Your task to perform on an android device: Open Wikipedia Image 0: 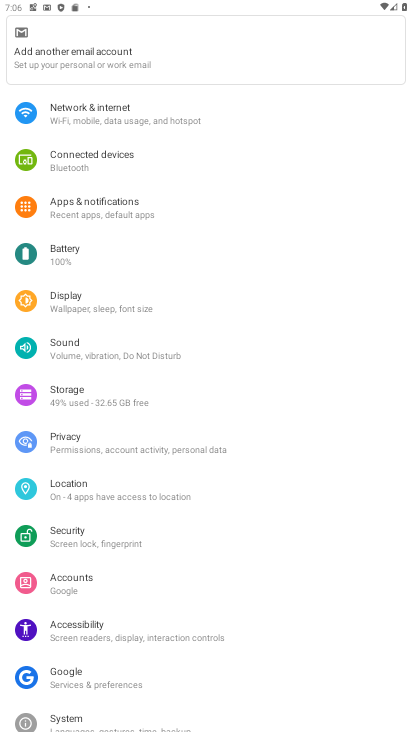
Step 0: press home button
Your task to perform on an android device: Open Wikipedia Image 1: 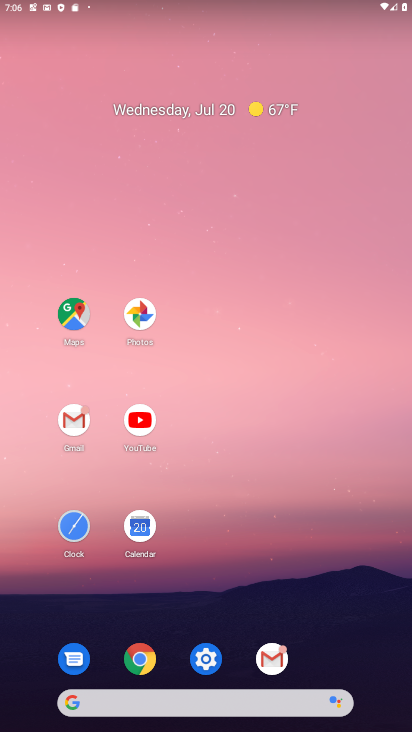
Step 1: click (143, 660)
Your task to perform on an android device: Open Wikipedia Image 2: 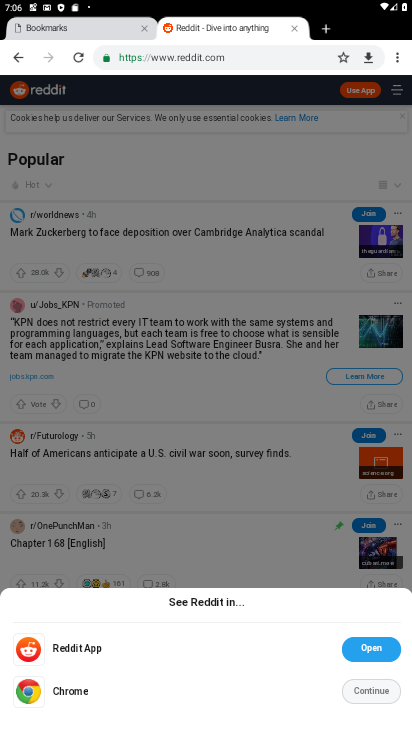
Step 2: click (396, 52)
Your task to perform on an android device: Open Wikipedia Image 3: 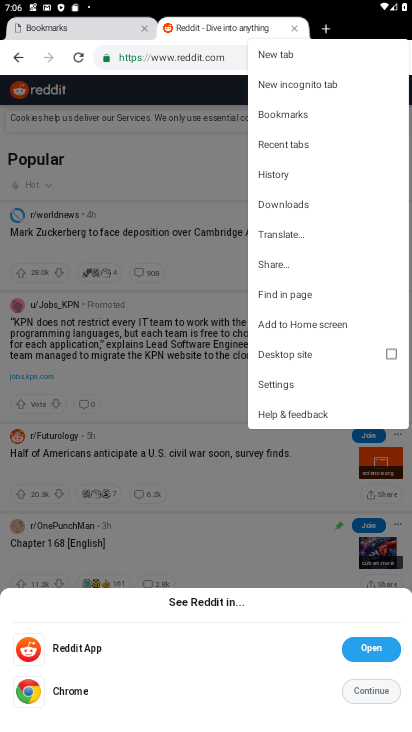
Step 3: click (295, 52)
Your task to perform on an android device: Open Wikipedia Image 4: 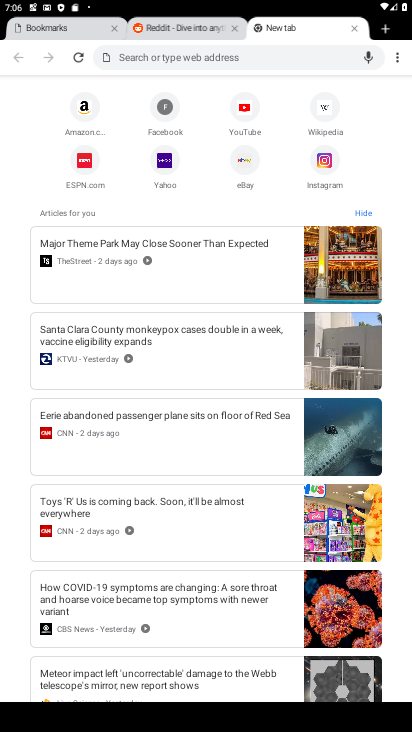
Step 4: click (333, 109)
Your task to perform on an android device: Open Wikipedia Image 5: 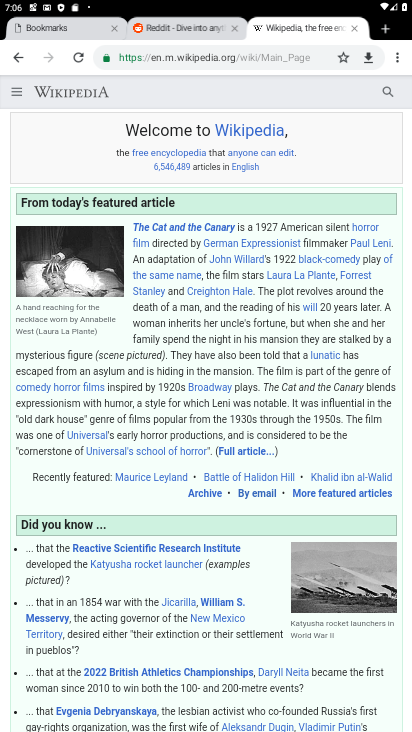
Step 5: task complete